Your task to perform on an android device: Open the Play Movies app and select the watchlist tab. Image 0: 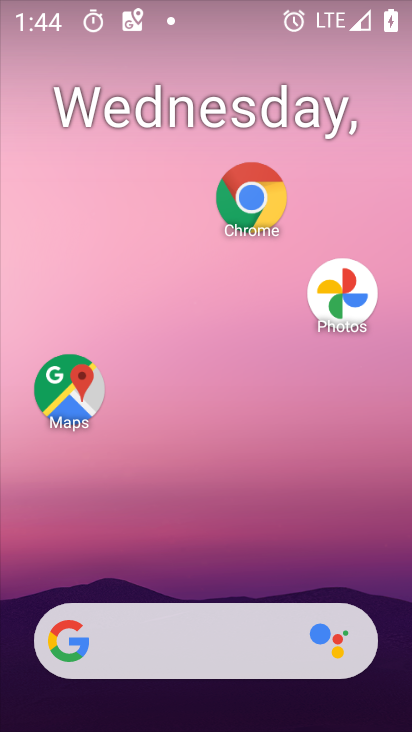
Step 0: drag from (254, 632) to (297, 223)
Your task to perform on an android device: Open the Play Movies app and select the watchlist tab. Image 1: 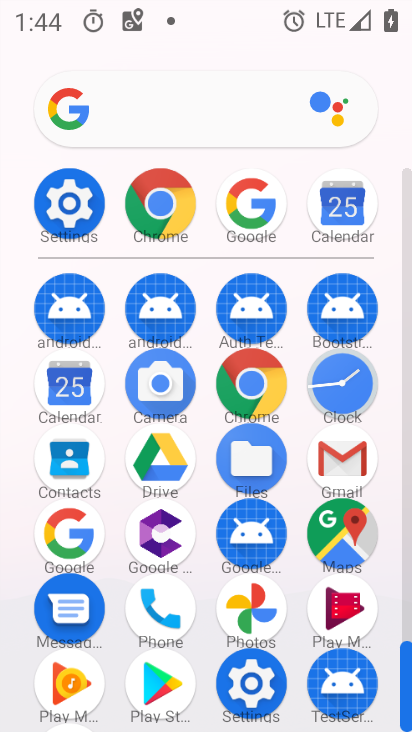
Step 1: drag from (256, 611) to (286, 316)
Your task to perform on an android device: Open the Play Movies app and select the watchlist tab. Image 2: 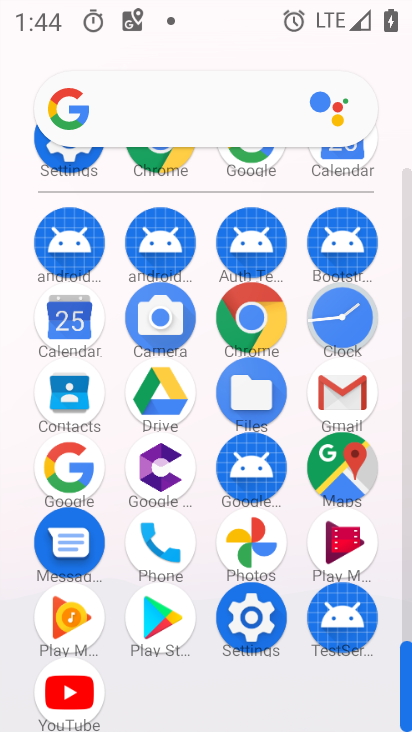
Step 2: click (358, 548)
Your task to perform on an android device: Open the Play Movies app and select the watchlist tab. Image 3: 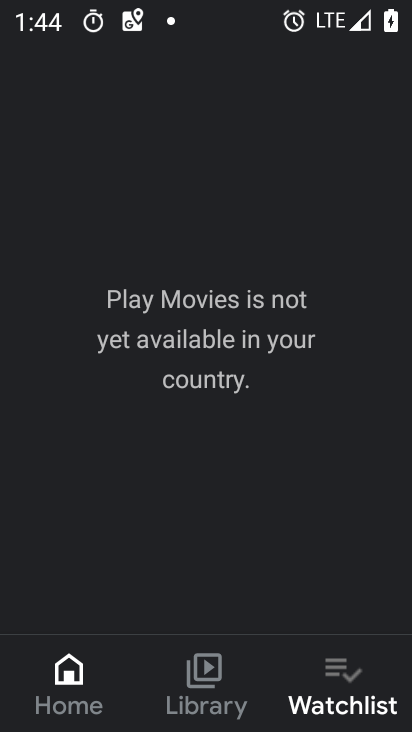
Step 3: click (355, 669)
Your task to perform on an android device: Open the Play Movies app and select the watchlist tab. Image 4: 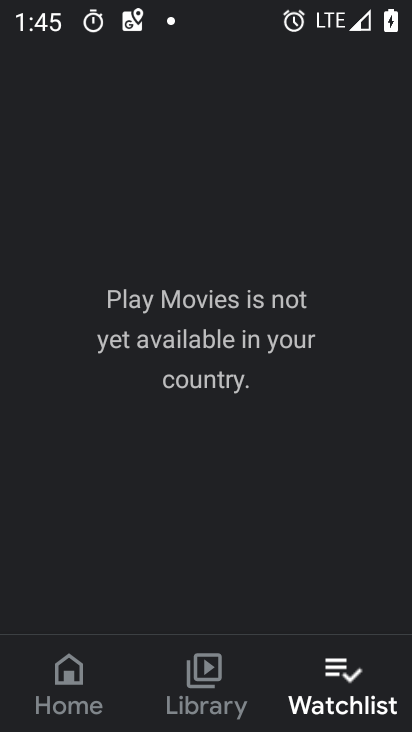
Step 4: task complete